Your task to perform on an android device: open app "Life360: Find Family & Friends" (install if not already installed) and go to login screen Image 0: 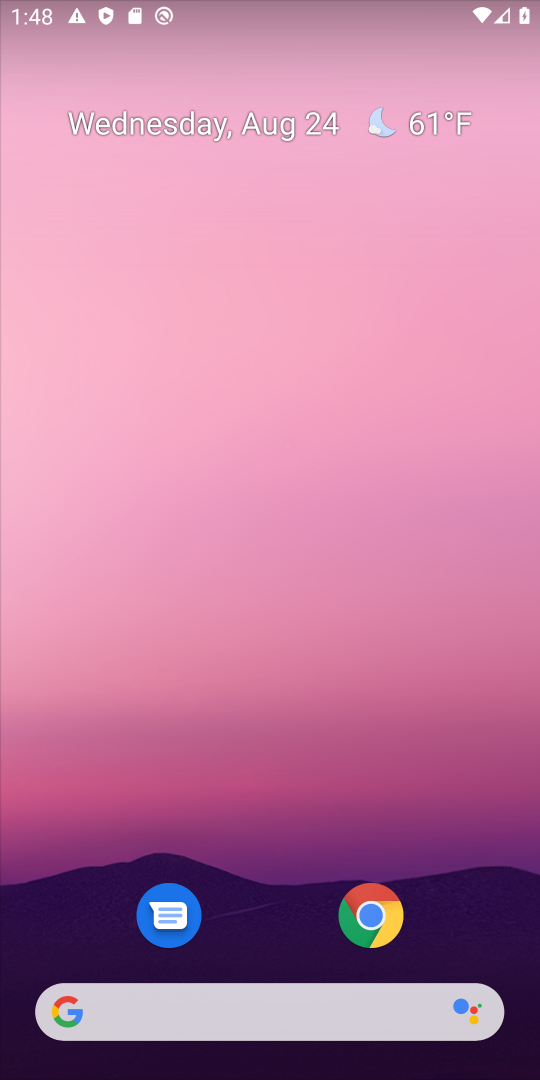
Step 0: drag from (238, 786) to (302, 72)
Your task to perform on an android device: open app "Life360: Find Family & Friends" (install if not already installed) and go to login screen Image 1: 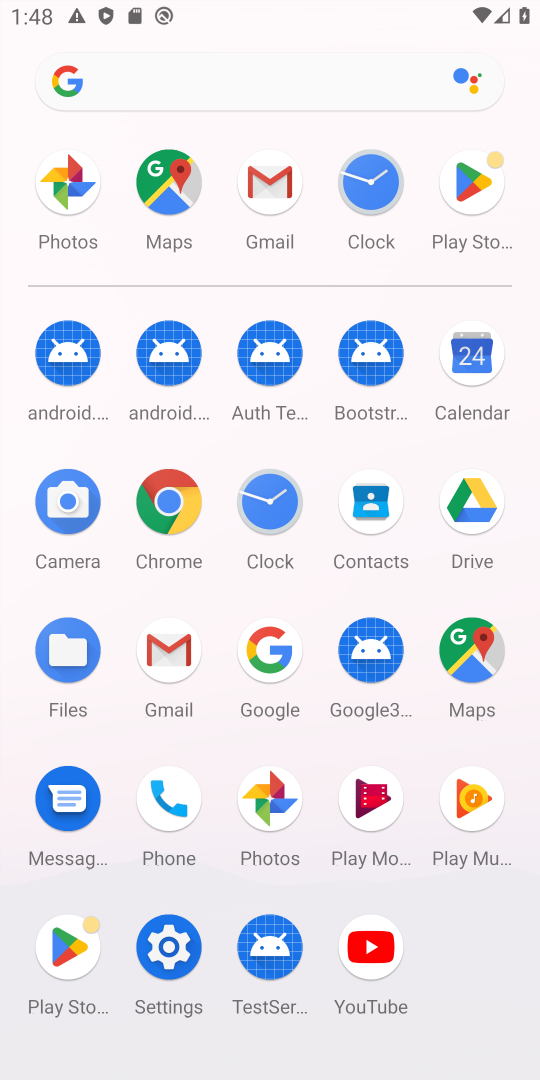
Step 1: click (453, 200)
Your task to perform on an android device: open app "Life360: Find Family & Friends" (install if not already installed) and go to login screen Image 2: 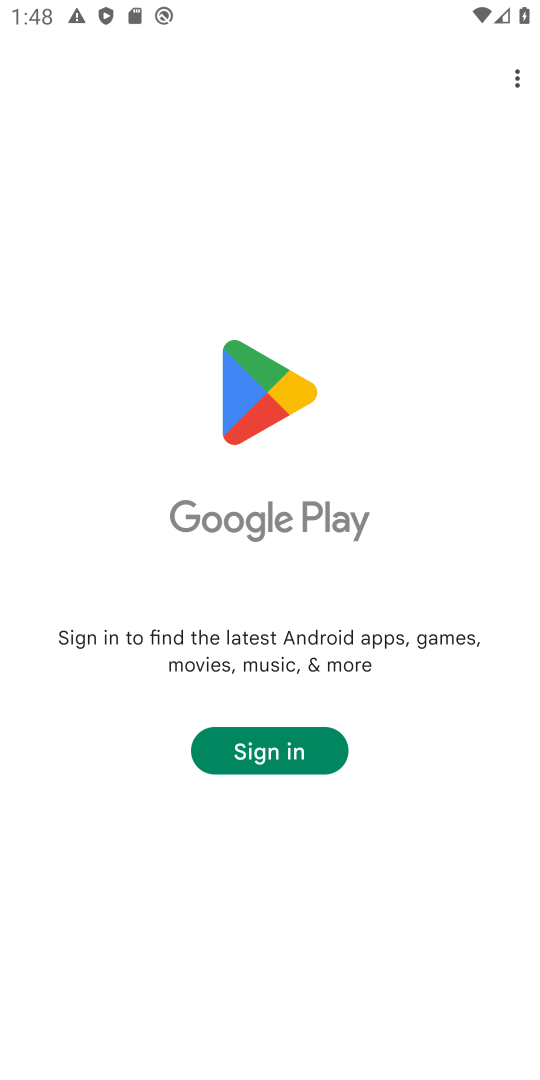
Step 2: task complete